Your task to perform on an android device: Open Wikipedia Image 0: 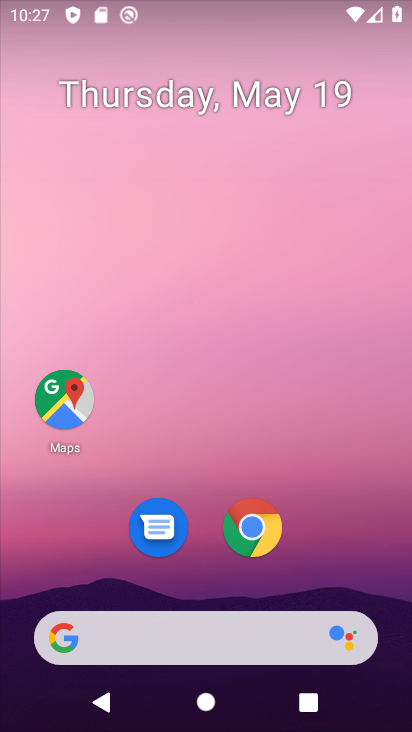
Step 0: click (232, 519)
Your task to perform on an android device: Open Wikipedia Image 1: 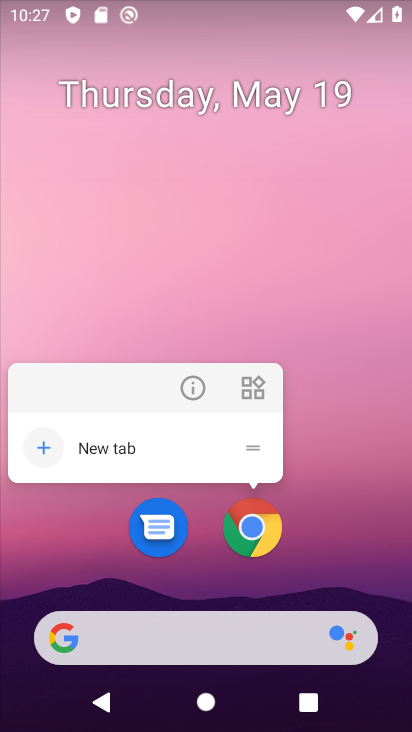
Step 1: click (251, 530)
Your task to perform on an android device: Open Wikipedia Image 2: 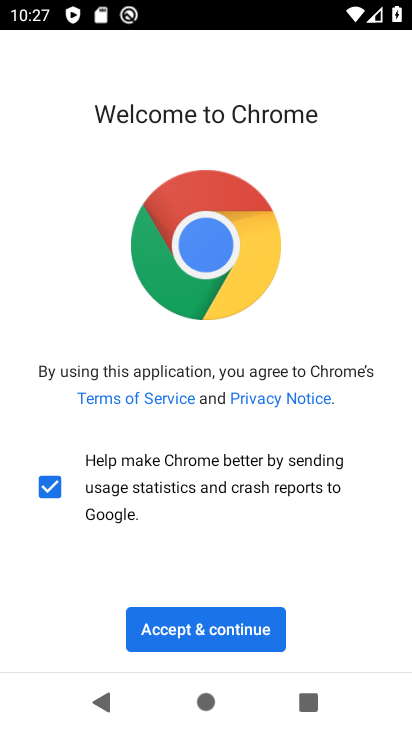
Step 2: click (202, 646)
Your task to perform on an android device: Open Wikipedia Image 3: 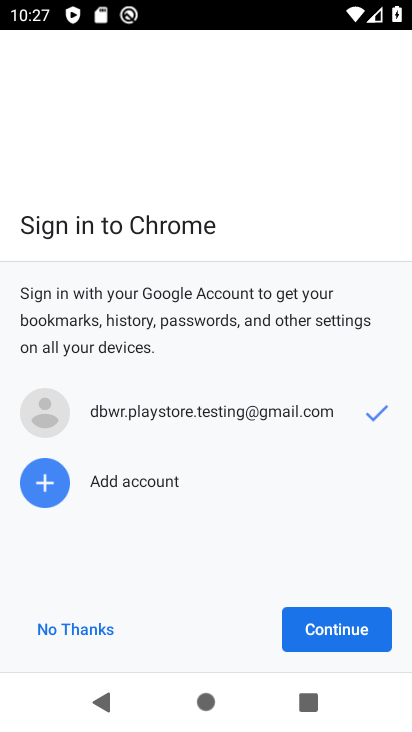
Step 3: click (369, 624)
Your task to perform on an android device: Open Wikipedia Image 4: 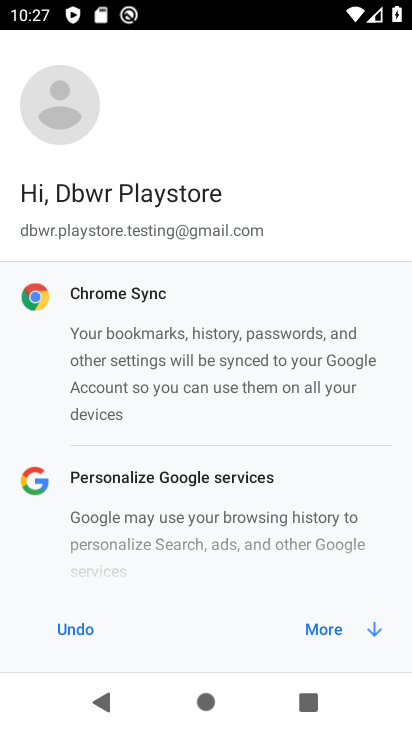
Step 4: click (343, 625)
Your task to perform on an android device: Open Wikipedia Image 5: 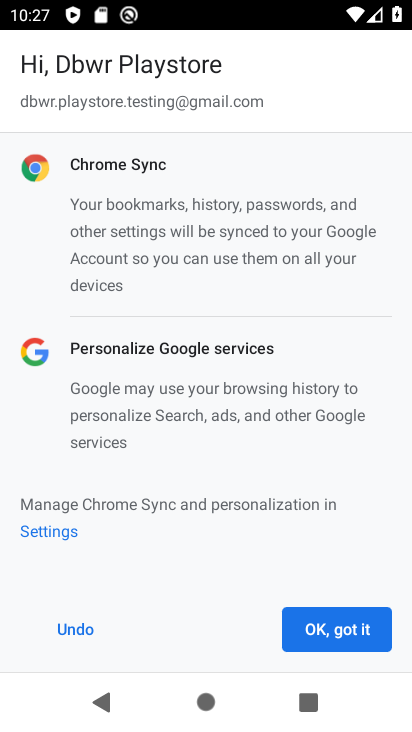
Step 5: click (334, 633)
Your task to perform on an android device: Open Wikipedia Image 6: 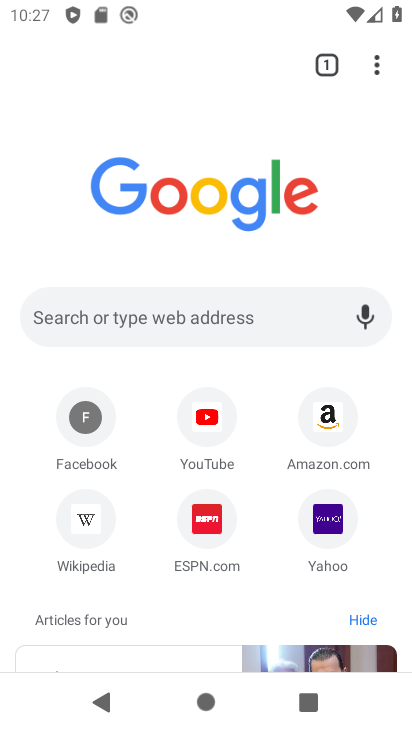
Step 6: click (70, 517)
Your task to perform on an android device: Open Wikipedia Image 7: 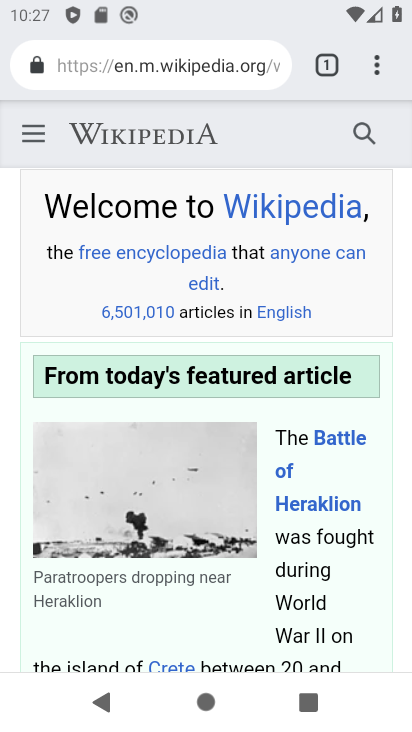
Step 7: task complete